Your task to perform on an android device: find which apps use the phone's location Image 0: 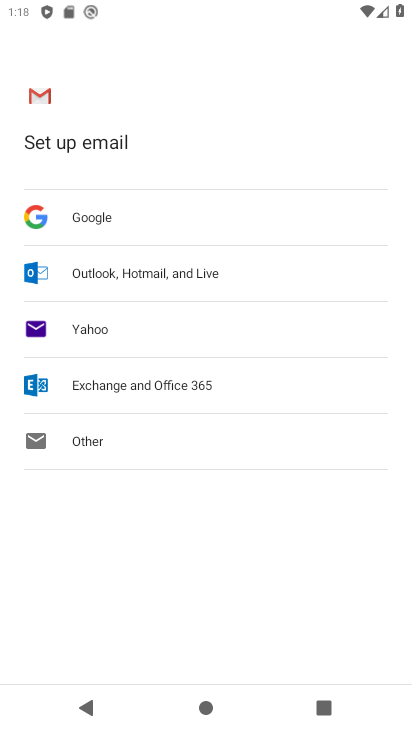
Step 0: press home button
Your task to perform on an android device: find which apps use the phone's location Image 1: 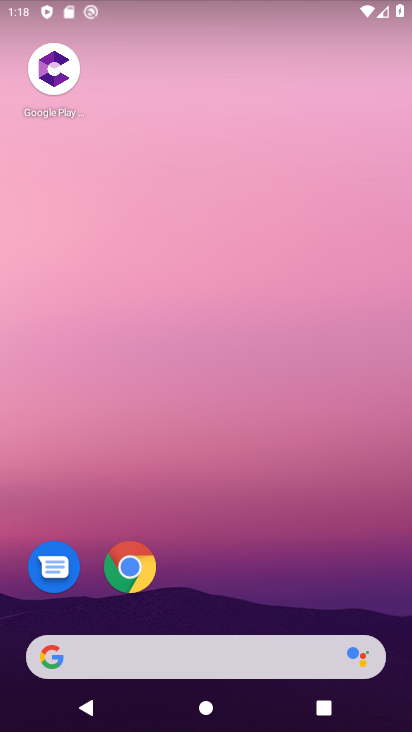
Step 1: drag from (225, 560) to (223, 212)
Your task to perform on an android device: find which apps use the phone's location Image 2: 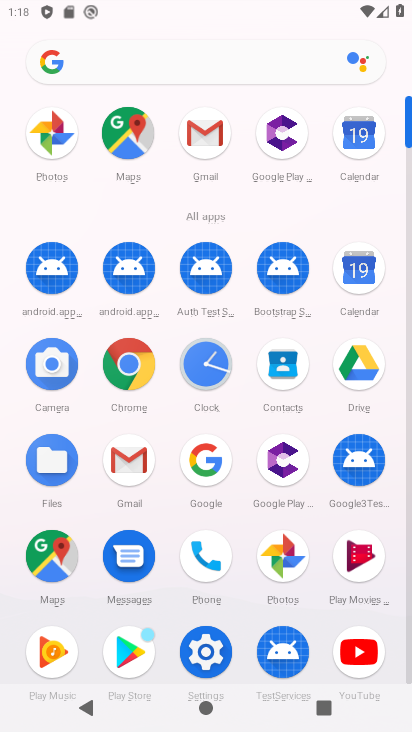
Step 2: click (206, 647)
Your task to perform on an android device: find which apps use the phone's location Image 3: 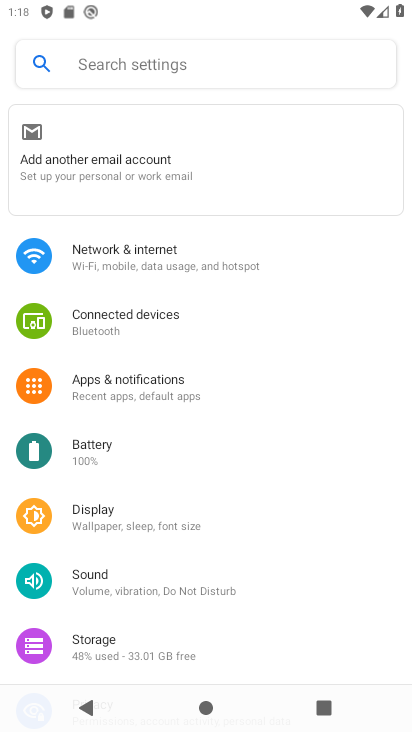
Step 3: drag from (157, 609) to (161, 200)
Your task to perform on an android device: find which apps use the phone's location Image 4: 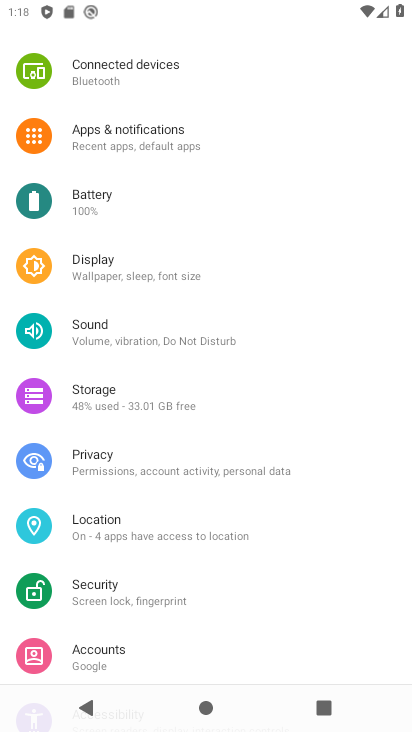
Step 4: click (132, 534)
Your task to perform on an android device: find which apps use the phone's location Image 5: 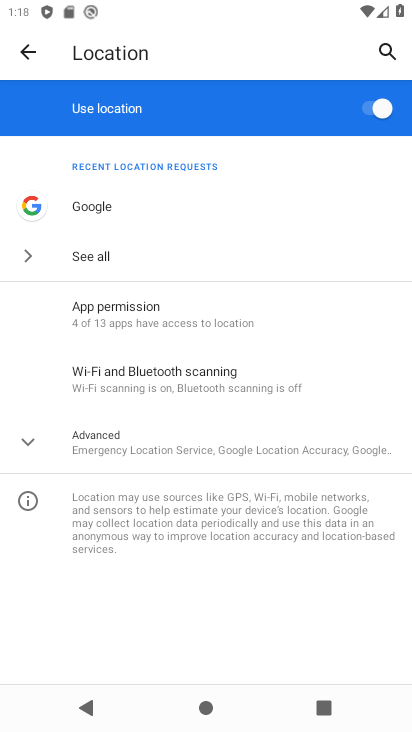
Step 5: click (91, 201)
Your task to perform on an android device: find which apps use the phone's location Image 6: 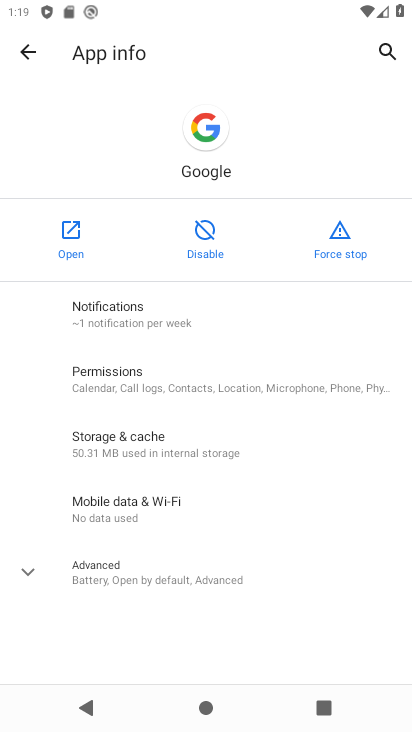
Step 6: click (145, 390)
Your task to perform on an android device: find which apps use the phone's location Image 7: 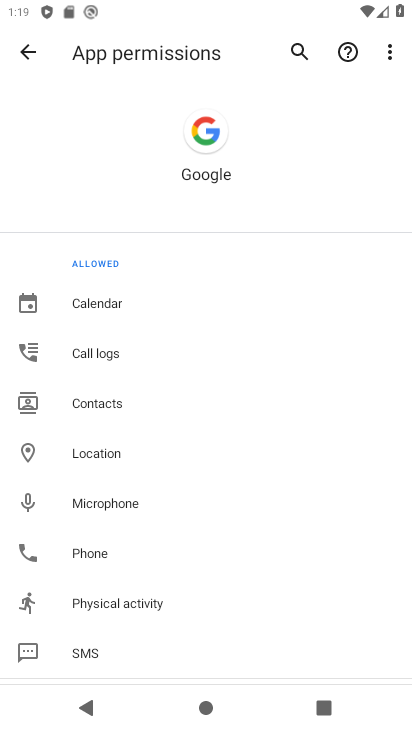
Step 7: click (113, 448)
Your task to perform on an android device: find which apps use the phone's location Image 8: 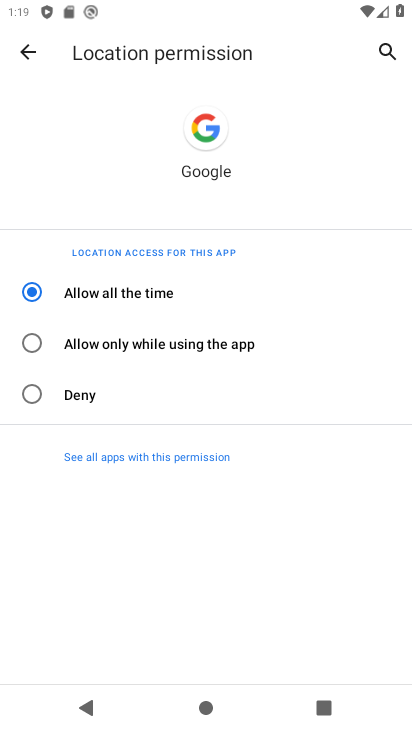
Step 8: task complete